Your task to perform on an android device: star an email in the gmail app Image 0: 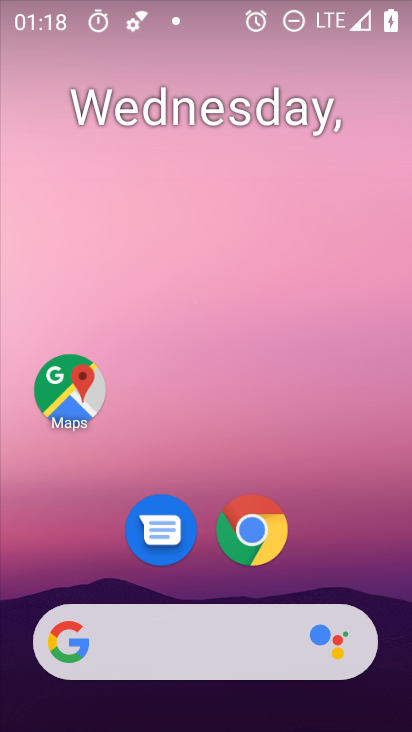
Step 0: task impossible